Your task to perform on an android device: turn off javascript in the chrome app Image 0: 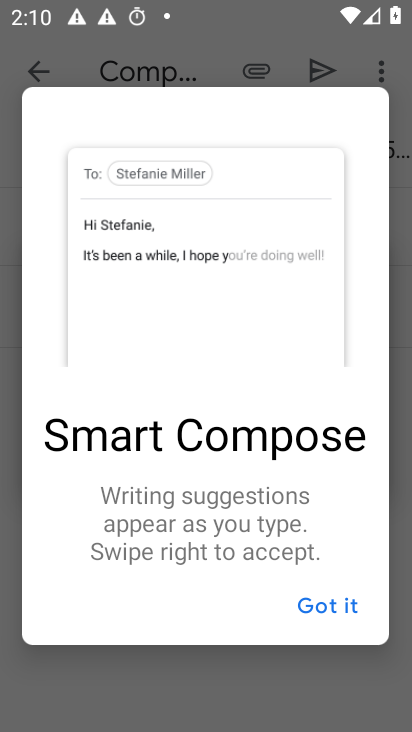
Step 0: press home button
Your task to perform on an android device: turn off javascript in the chrome app Image 1: 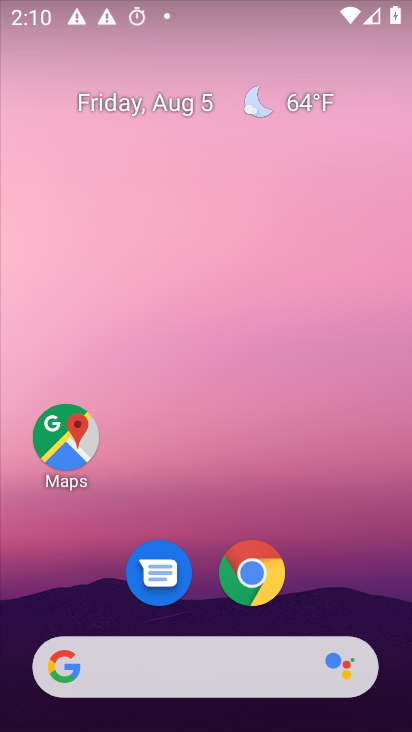
Step 1: drag from (325, 601) to (337, 200)
Your task to perform on an android device: turn off javascript in the chrome app Image 2: 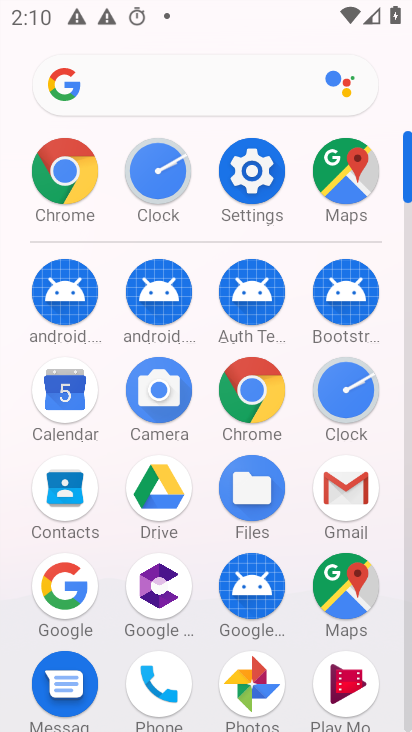
Step 2: click (259, 402)
Your task to perform on an android device: turn off javascript in the chrome app Image 3: 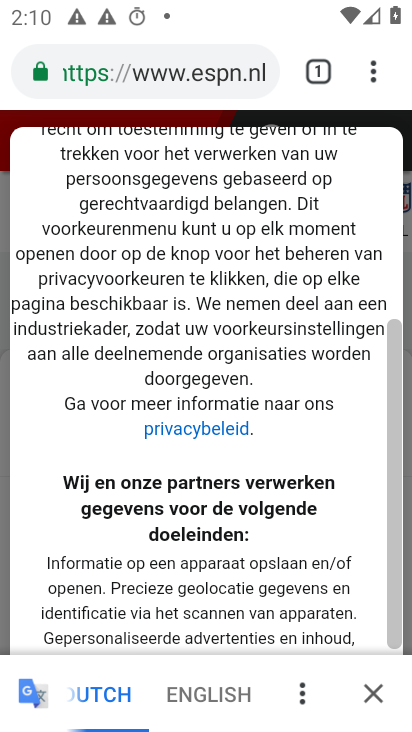
Step 3: click (375, 76)
Your task to perform on an android device: turn off javascript in the chrome app Image 4: 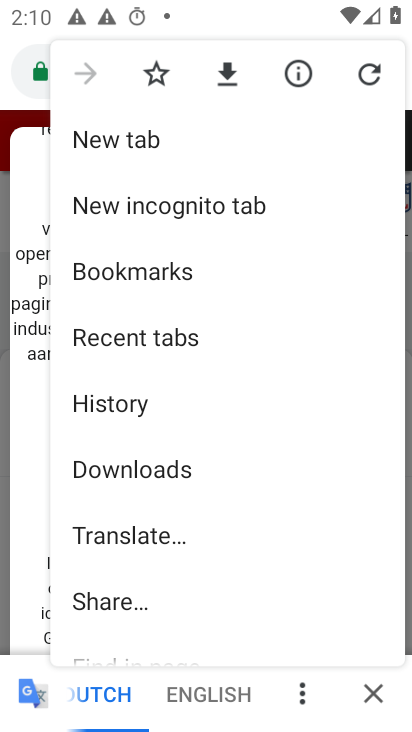
Step 4: drag from (304, 504) to (323, 403)
Your task to perform on an android device: turn off javascript in the chrome app Image 5: 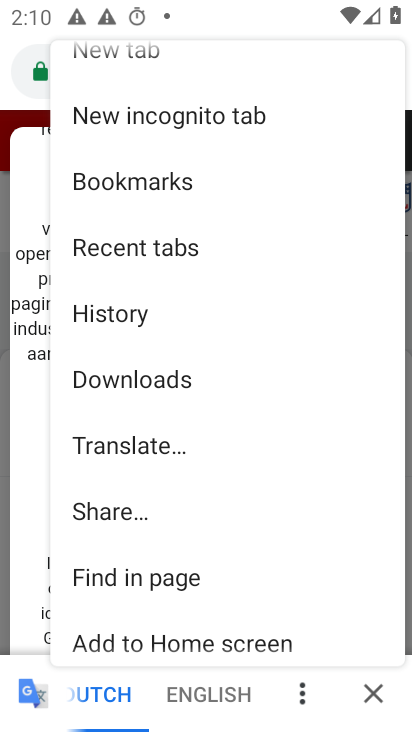
Step 5: drag from (293, 556) to (305, 431)
Your task to perform on an android device: turn off javascript in the chrome app Image 6: 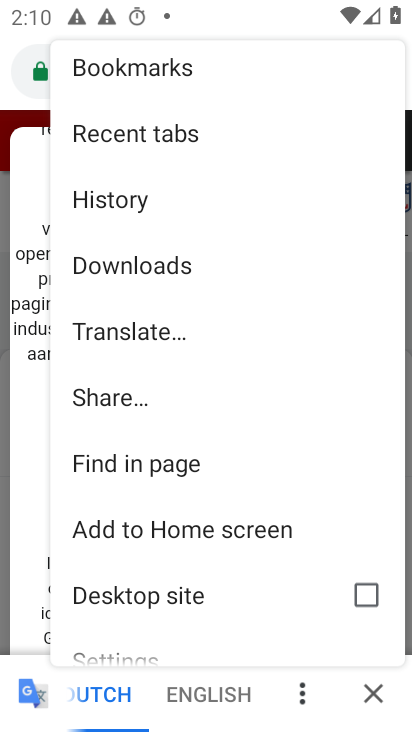
Step 6: drag from (271, 578) to (277, 407)
Your task to perform on an android device: turn off javascript in the chrome app Image 7: 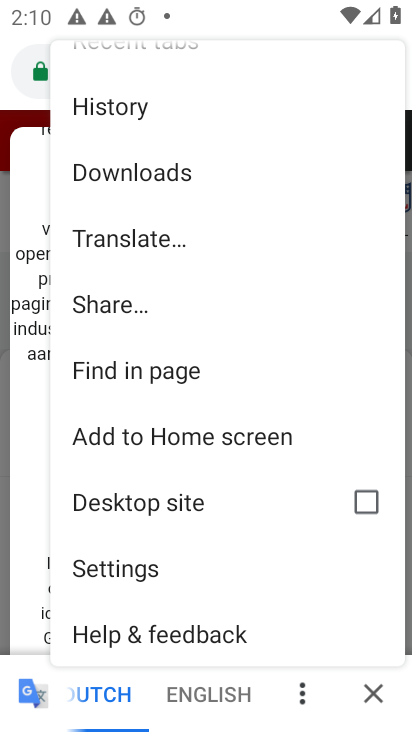
Step 7: click (248, 580)
Your task to perform on an android device: turn off javascript in the chrome app Image 8: 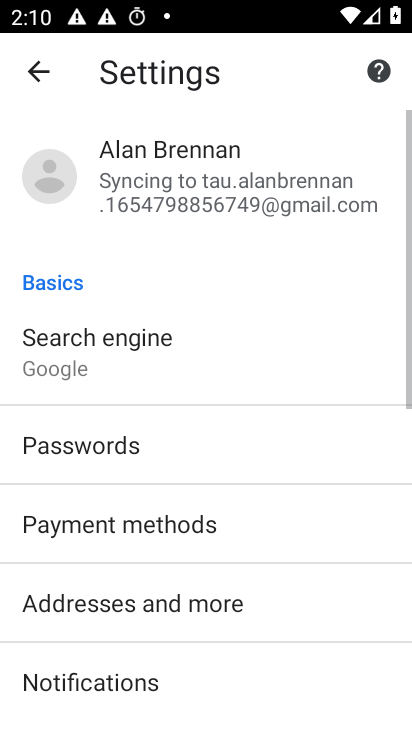
Step 8: drag from (303, 540) to (310, 441)
Your task to perform on an android device: turn off javascript in the chrome app Image 9: 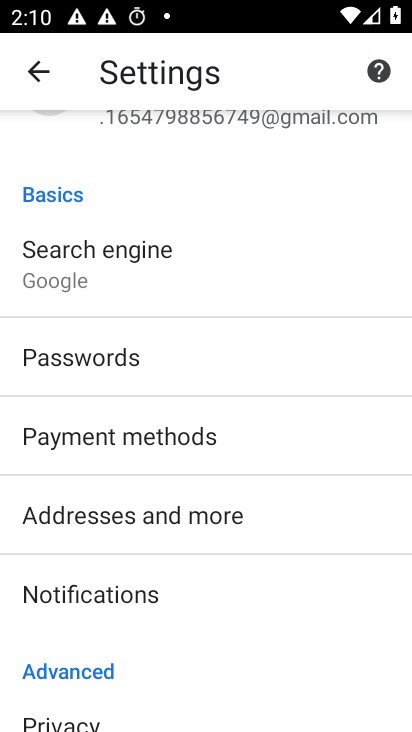
Step 9: drag from (310, 610) to (319, 495)
Your task to perform on an android device: turn off javascript in the chrome app Image 10: 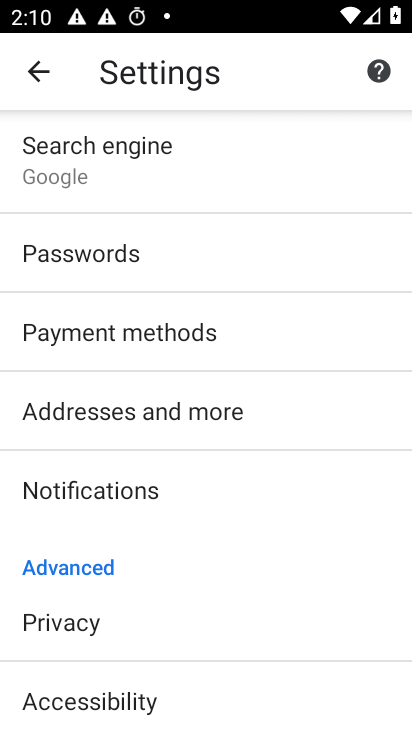
Step 10: drag from (287, 475) to (297, 367)
Your task to perform on an android device: turn off javascript in the chrome app Image 11: 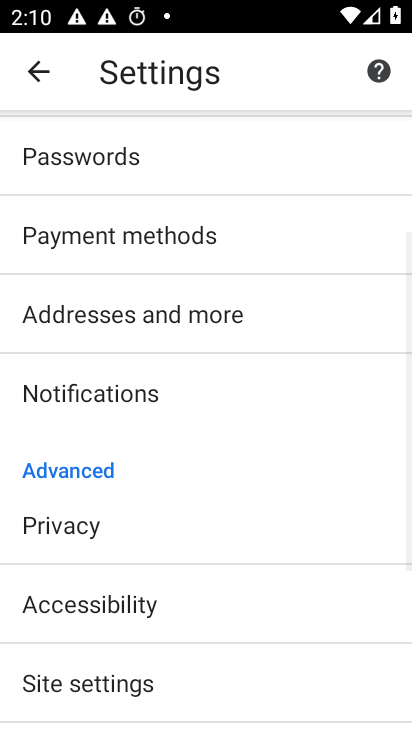
Step 11: drag from (288, 499) to (300, 383)
Your task to perform on an android device: turn off javascript in the chrome app Image 12: 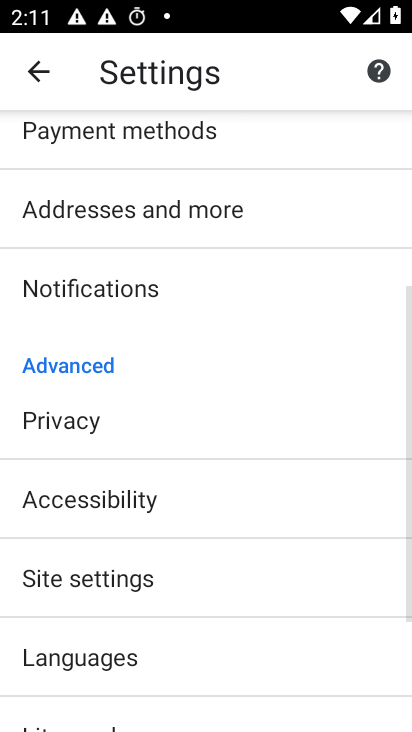
Step 12: drag from (285, 538) to (301, 412)
Your task to perform on an android device: turn off javascript in the chrome app Image 13: 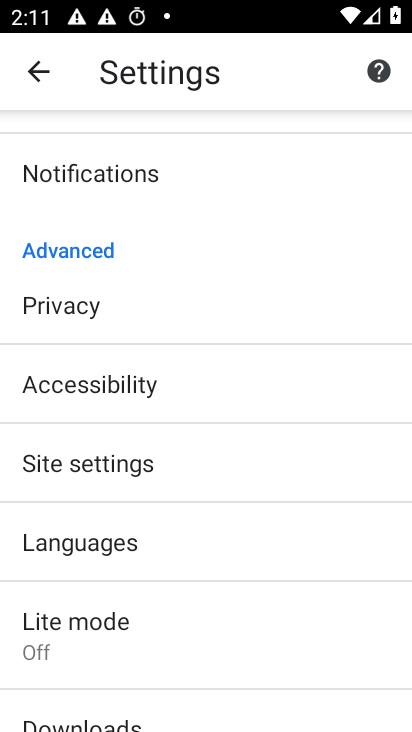
Step 13: drag from (270, 564) to (271, 440)
Your task to perform on an android device: turn off javascript in the chrome app Image 14: 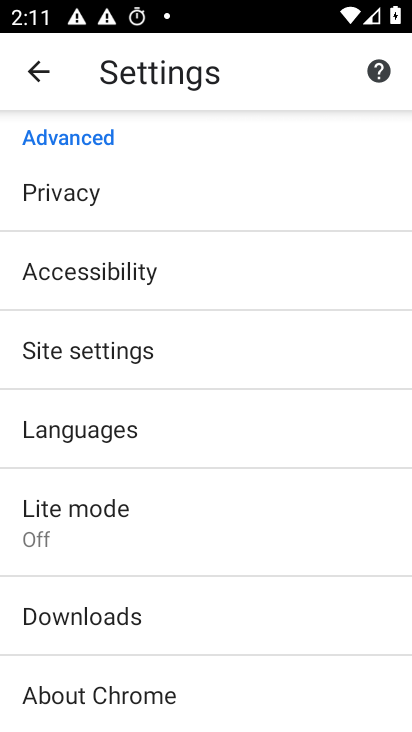
Step 14: click (282, 359)
Your task to perform on an android device: turn off javascript in the chrome app Image 15: 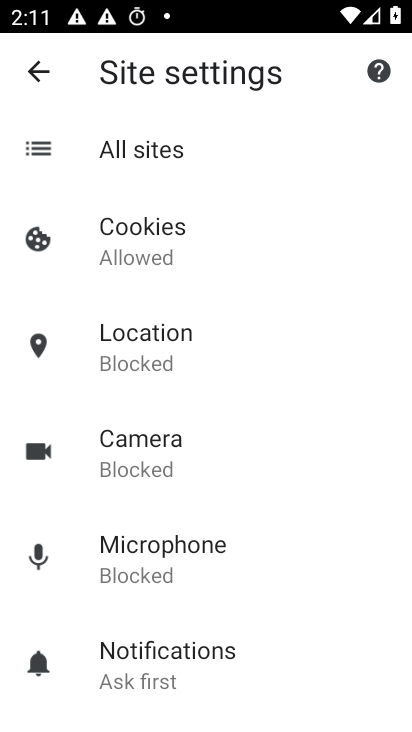
Step 15: drag from (311, 471) to (321, 372)
Your task to perform on an android device: turn off javascript in the chrome app Image 16: 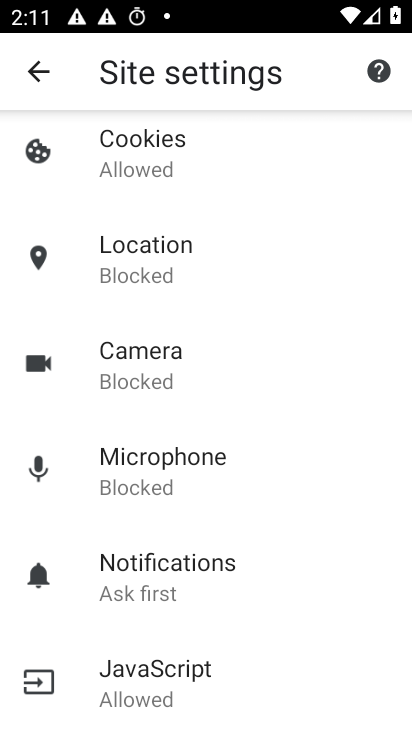
Step 16: drag from (322, 538) to (333, 462)
Your task to perform on an android device: turn off javascript in the chrome app Image 17: 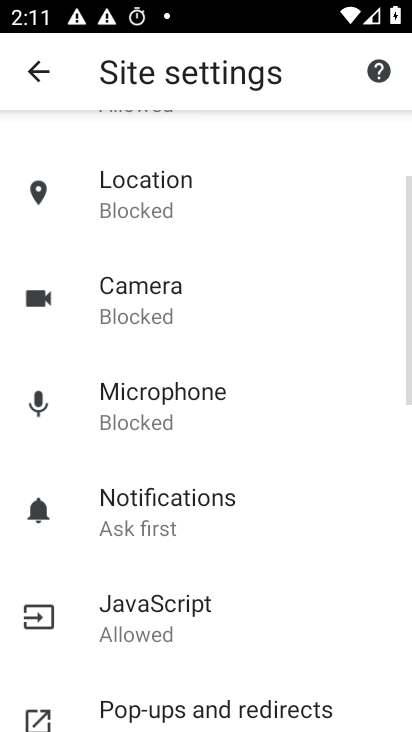
Step 17: drag from (314, 584) to (336, 463)
Your task to perform on an android device: turn off javascript in the chrome app Image 18: 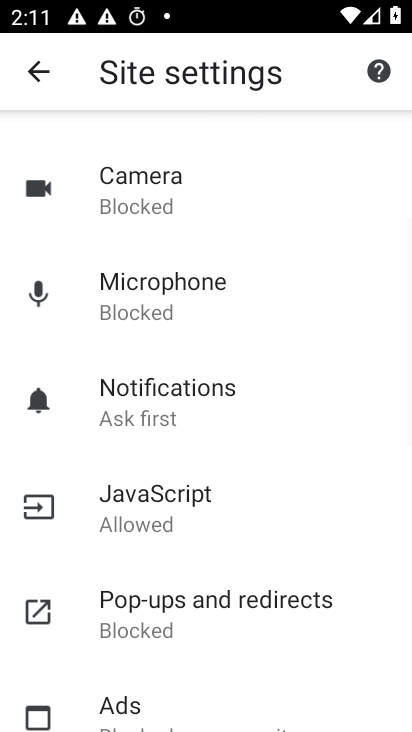
Step 18: drag from (309, 616) to (338, 467)
Your task to perform on an android device: turn off javascript in the chrome app Image 19: 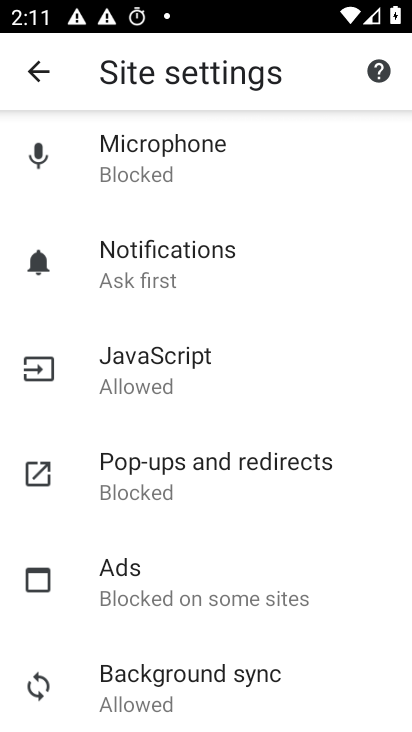
Step 19: drag from (338, 589) to (357, 485)
Your task to perform on an android device: turn off javascript in the chrome app Image 20: 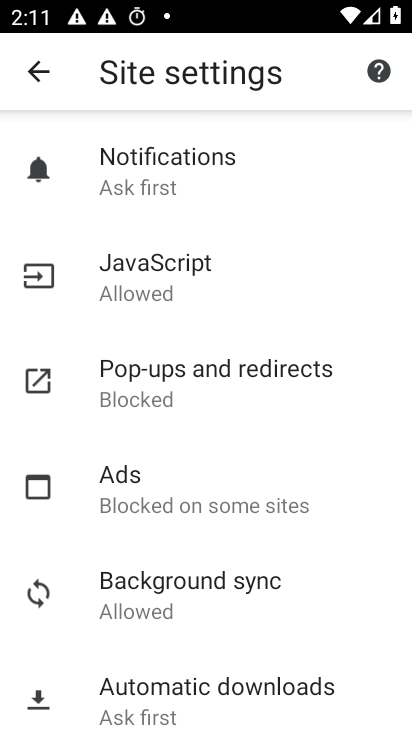
Step 20: click (189, 259)
Your task to perform on an android device: turn off javascript in the chrome app Image 21: 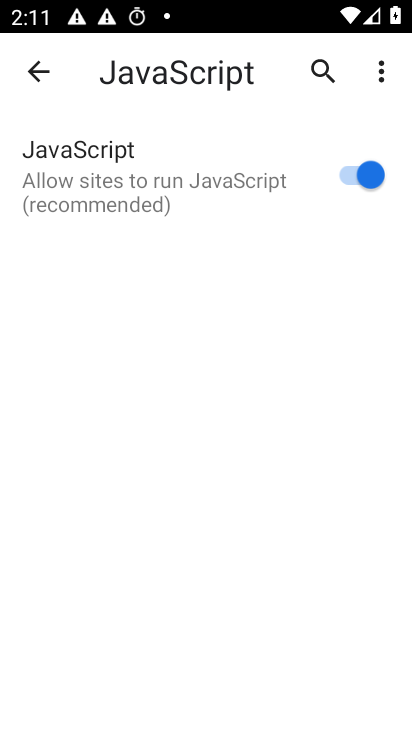
Step 21: click (351, 180)
Your task to perform on an android device: turn off javascript in the chrome app Image 22: 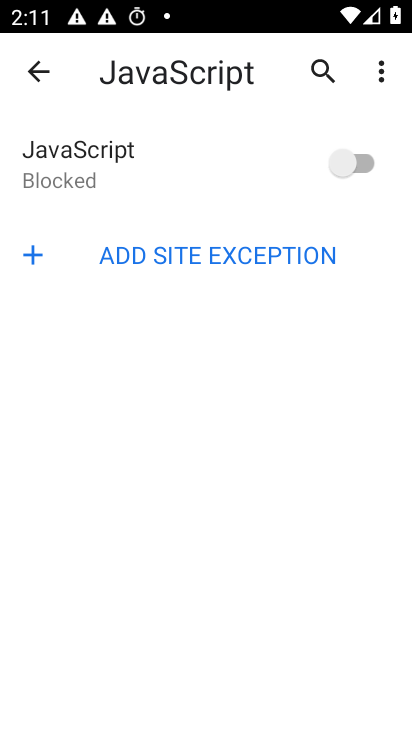
Step 22: task complete